Your task to perform on an android device: Open calendar and show me the first week of next month Image 0: 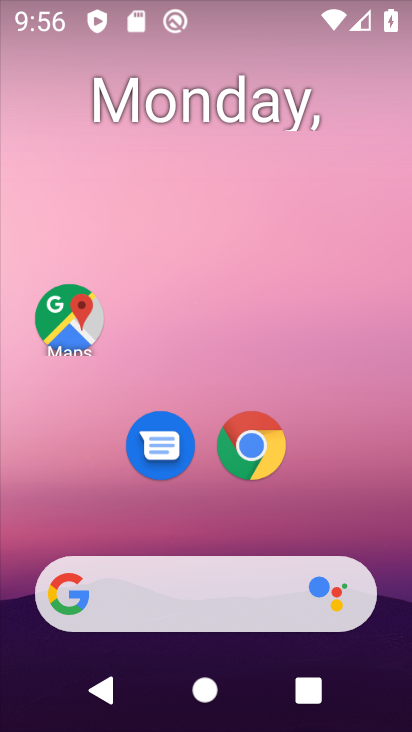
Step 0: click (281, 213)
Your task to perform on an android device: Open calendar and show me the first week of next month Image 1: 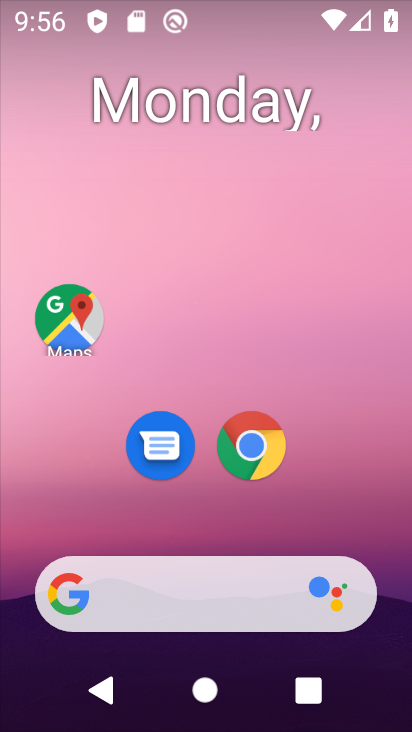
Step 1: drag from (353, 439) to (298, 125)
Your task to perform on an android device: Open calendar and show me the first week of next month Image 2: 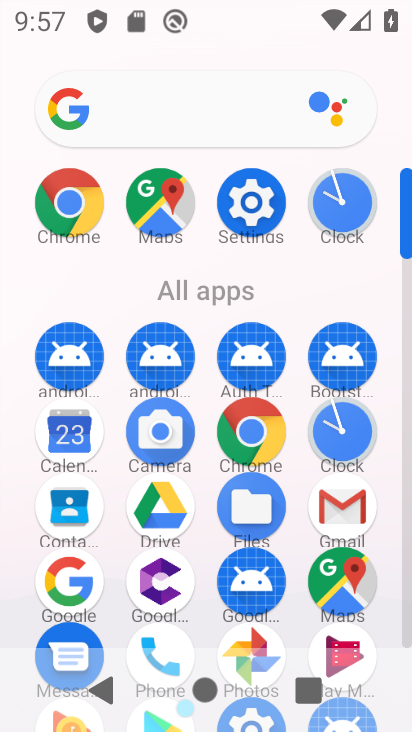
Step 2: drag from (304, 632) to (306, 423)
Your task to perform on an android device: Open calendar and show me the first week of next month Image 3: 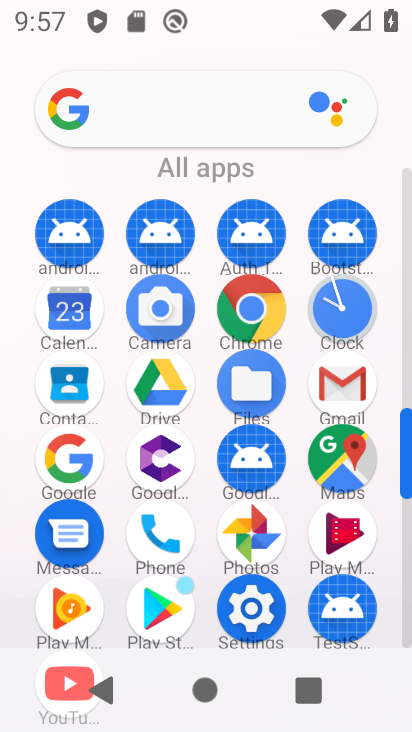
Step 3: click (41, 315)
Your task to perform on an android device: Open calendar and show me the first week of next month Image 4: 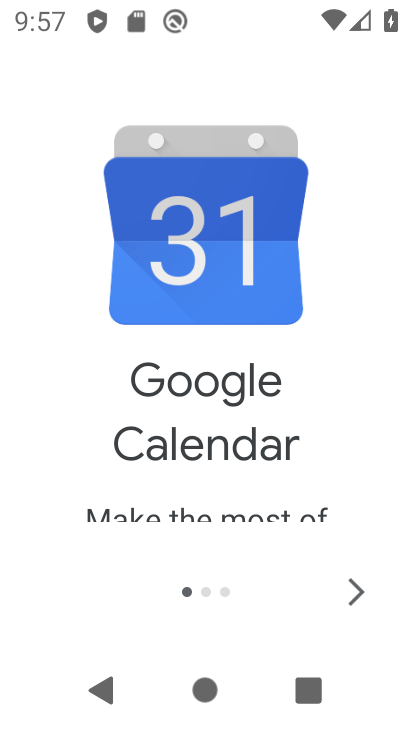
Step 4: click (359, 611)
Your task to perform on an android device: Open calendar and show me the first week of next month Image 5: 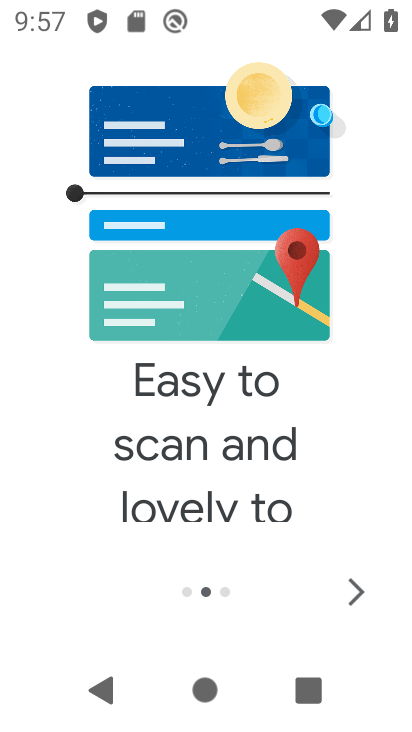
Step 5: click (359, 611)
Your task to perform on an android device: Open calendar and show me the first week of next month Image 6: 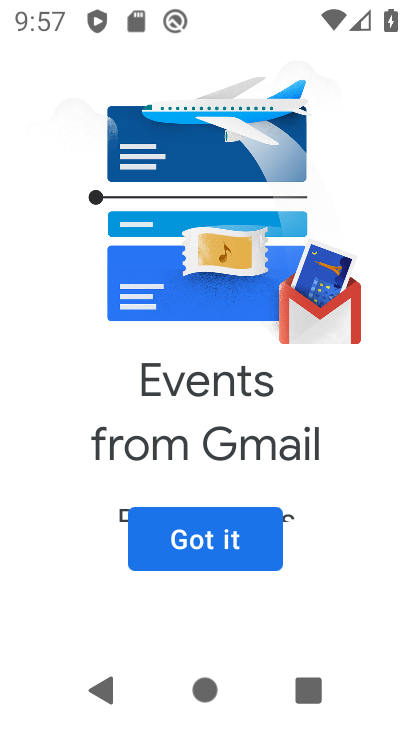
Step 6: click (171, 545)
Your task to perform on an android device: Open calendar and show me the first week of next month Image 7: 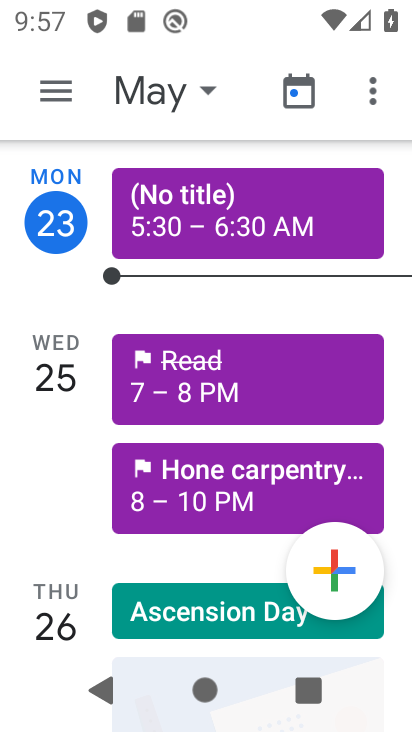
Step 7: click (161, 94)
Your task to perform on an android device: Open calendar and show me the first week of next month Image 8: 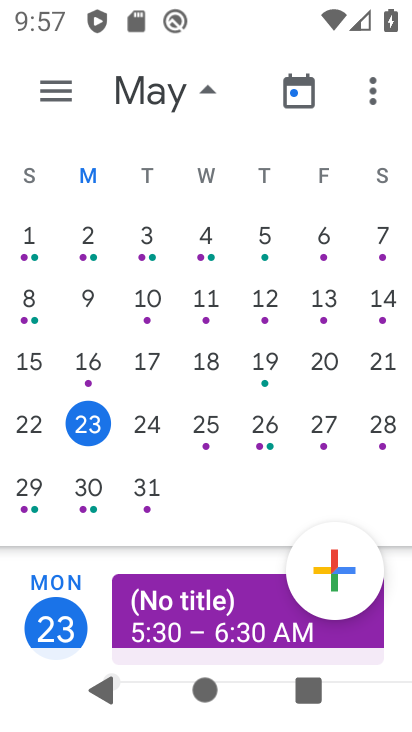
Step 8: drag from (362, 291) to (303, 289)
Your task to perform on an android device: Open calendar and show me the first week of next month Image 9: 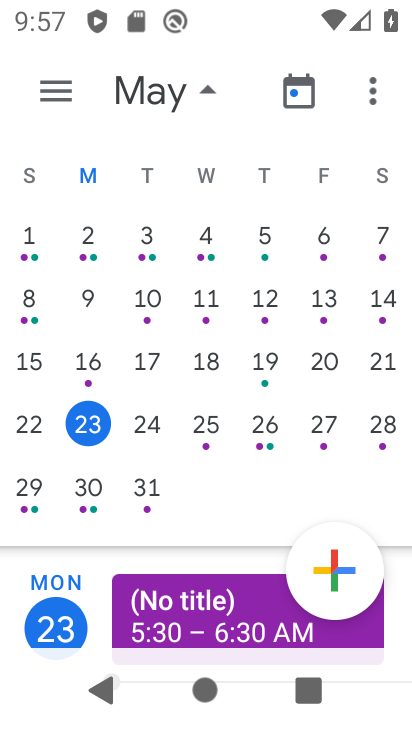
Step 9: click (64, 84)
Your task to perform on an android device: Open calendar and show me the first week of next month Image 10: 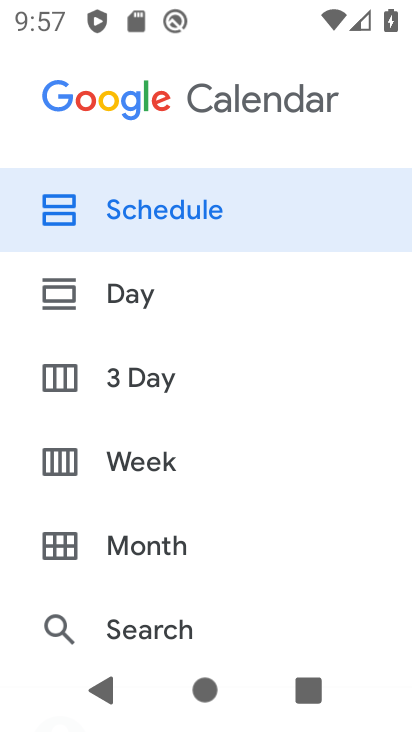
Step 10: click (198, 407)
Your task to perform on an android device: Open calendar and show me the first week of next month Image 11: 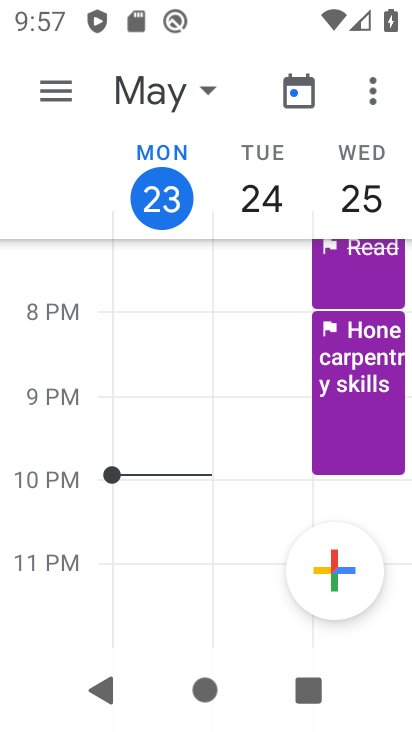
Step 11: click (75, 88)
Your task to perform on an android device: Open calendar and show me the first week of next month Image 12: 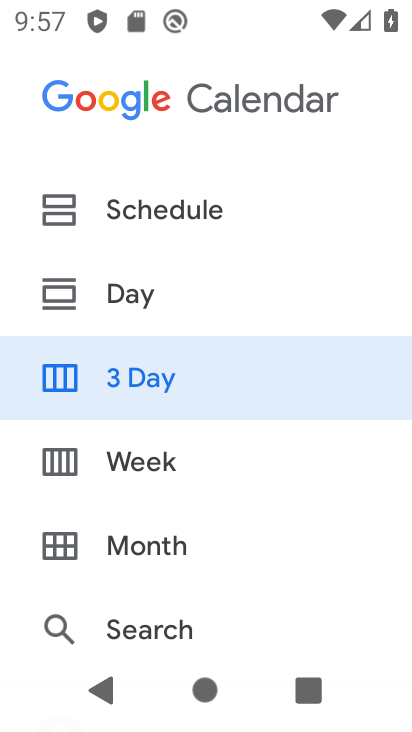
Step 12: click (96, 455)
Your task to perform on an android device: Open calendar and show me the first week of next month Image 13: 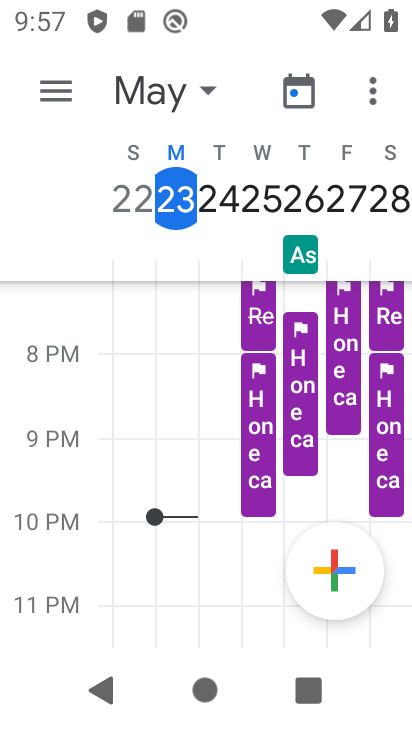
Step 13: task complete